Your task to perform on an android device: change notifications settings Image 0: 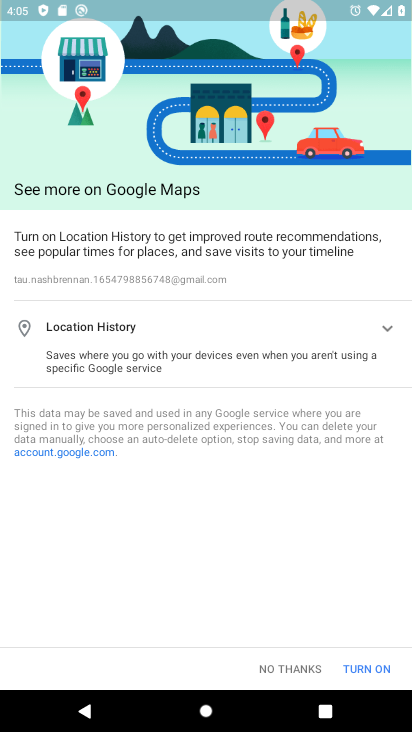
Step 0: press home button
Your task to perform on an android device: change notifications settings Image 1: 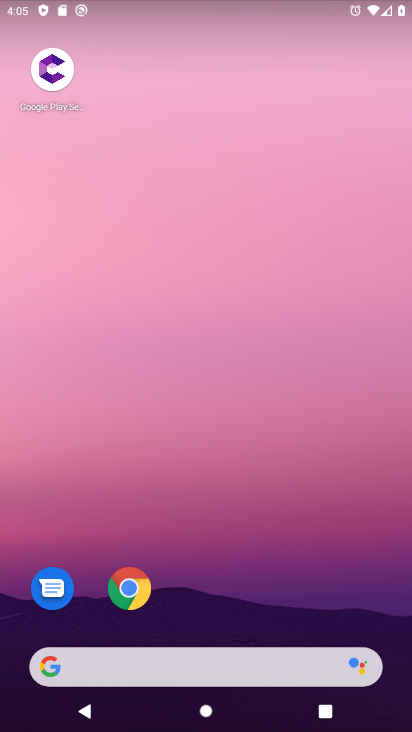
Step 1: drag from (209, 679) to (229, 340)
Your task to perform on an android device: change notifications settings Image 2: 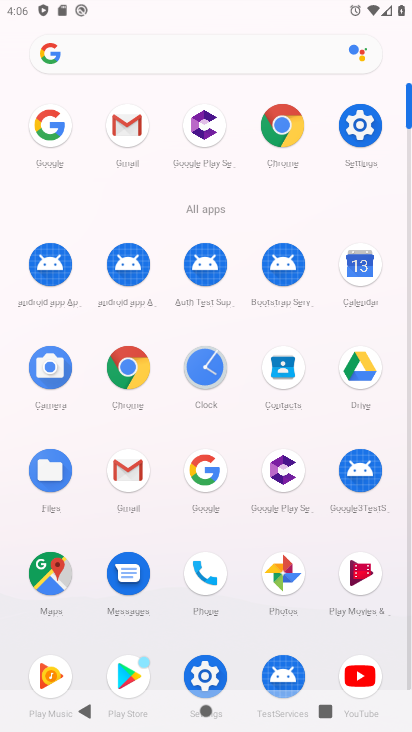
Step 2: click (123, 130)
Your task to perform on an android device: change notifications settings Image 3: 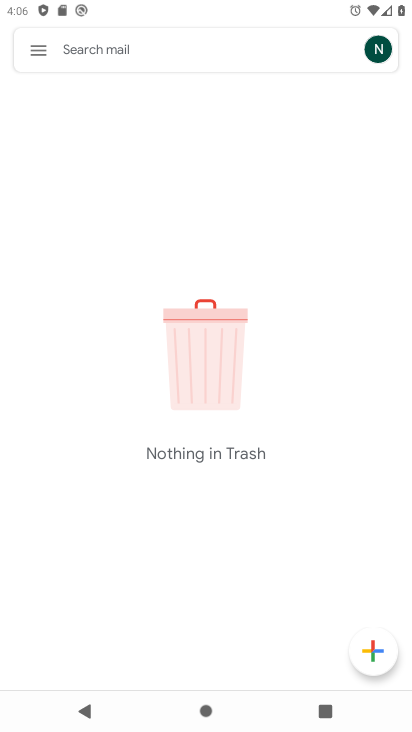
Step 3: click (48, 52)
Your task to perform on an android device: change notifications settings Image 4: 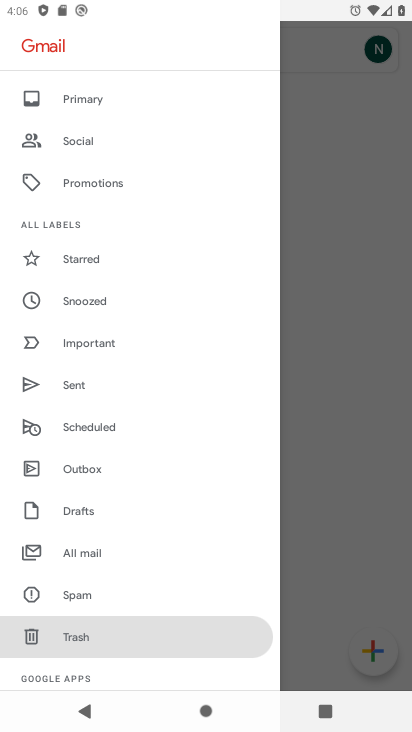
Step 4: drag from (108, 512) to (174, 360)
Your task to perform on an android device: change notifications settings Image 5: 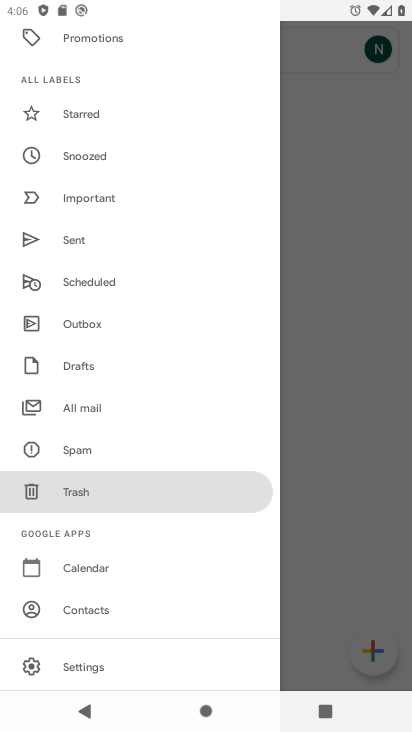
Step 5: click (100, 671)
Your task to perform on an android device: change notifications settings Image 6: 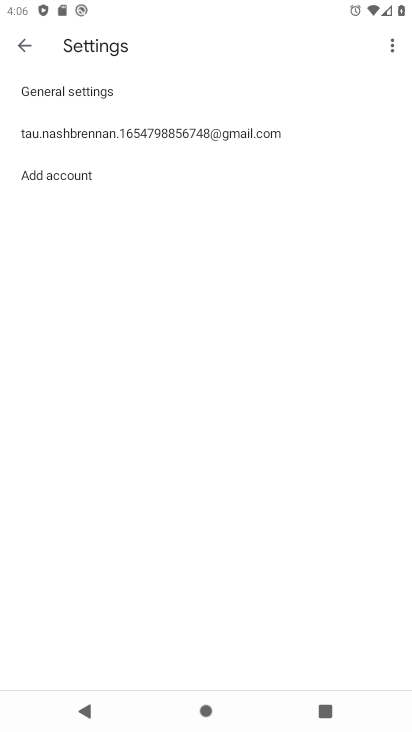
Step 6: click (70, 138)
Your task to perform on an android device: change notifications settings Image 7: 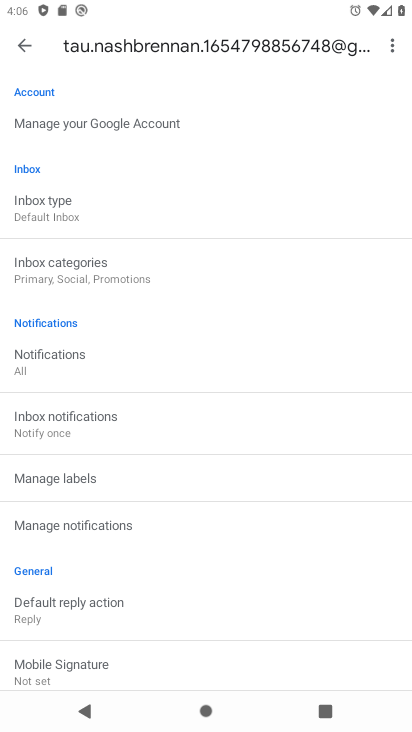
Step 7: click (74, 533)
Your task to perform on an android device: change notifications settings Image 8: 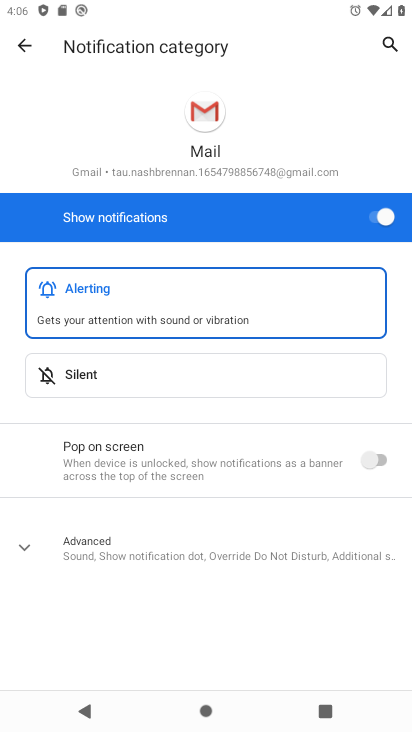
Step 8: click (386, 227)
Your task to perform on an android device: change notifications settings Image 9: 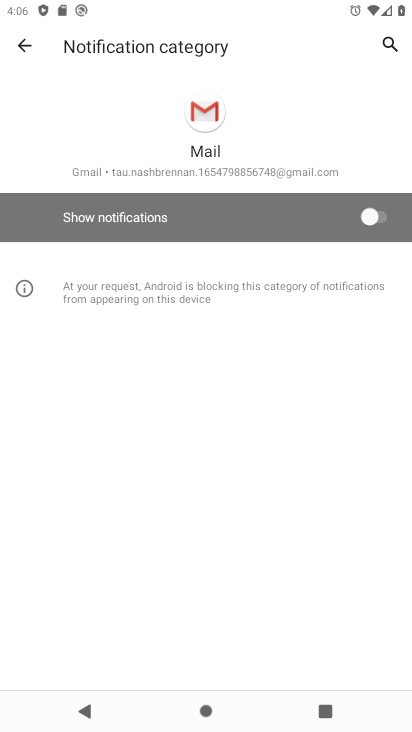
Step 9: task complete